Your task to perform on an android device: Open the phone app and click the voicemail tab. Image 0: 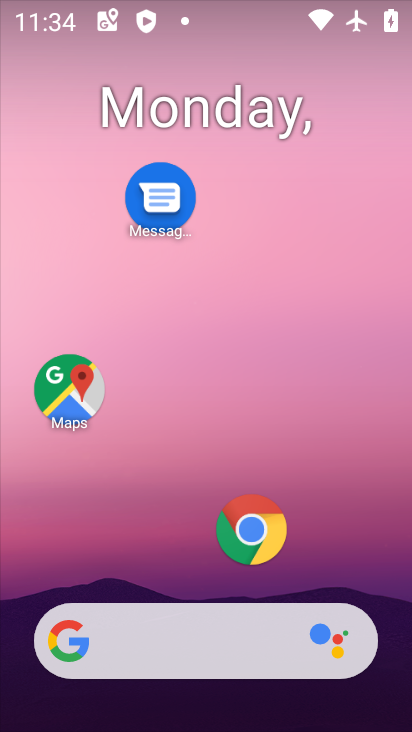
Step 0: drag from (166, 572) to (232, 252)
Your task to perform on an android device: Open the phone app and click the voicemail tab. Image 1: 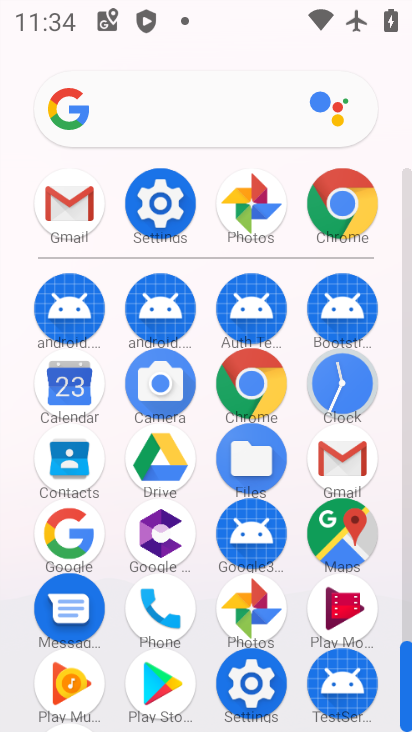
Step 1: click (157, 613)
Your task to perform on an android device: Open the phone app and click the voicemail tab. Image 2: 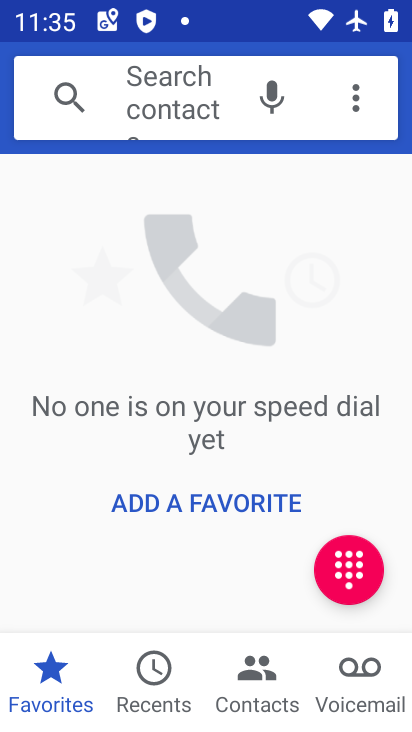
Step 2: click (346, 685)
Your task to perform on an android device: Open the phone app and click the voicemail tab. Image 3: 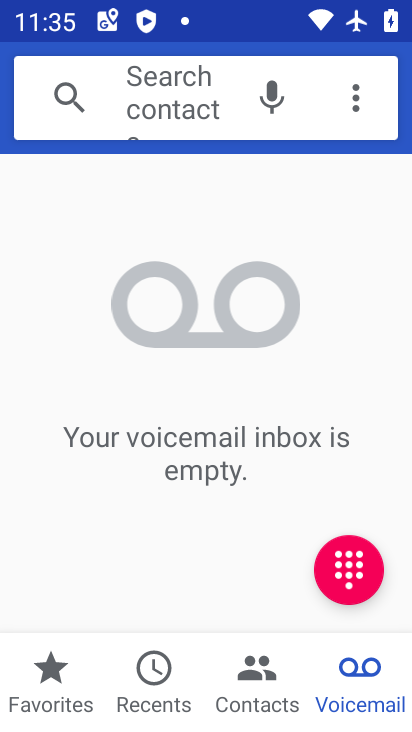
Step 3: task complete